Your task to perform on an android device: Play the last video I watched on Youtube Image 0: 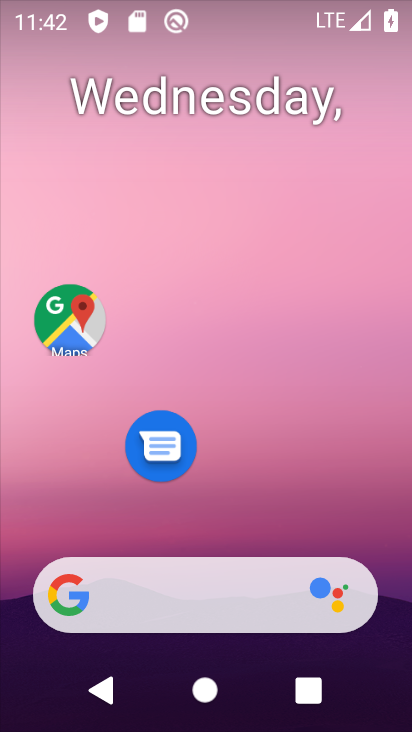
Step 0: drag from (265, 520) to (65, 80)
Your task to perform on an android device: Play the last video I watched on Youtube Image 1: 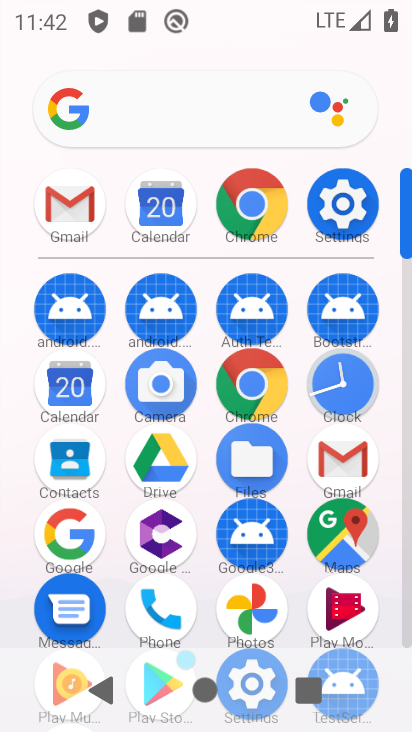
Step 1: drag from (290, 620) to (291, 298)
Your task to perform on an android device: Play the last video I watched on Youtube Image 2: 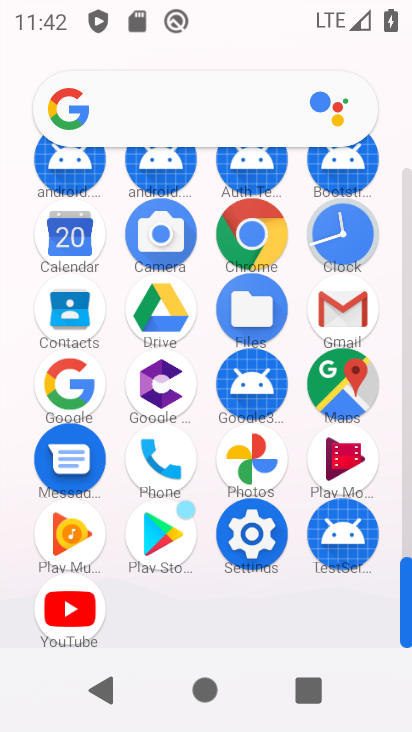
Step 2: click (74, 606)
Your task to perform on an android device: Play the last video I watched on Youtube Image 3: 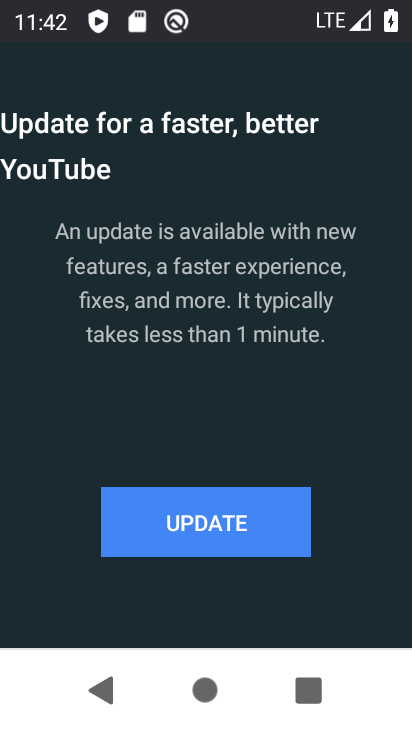
Step 3: click (239, 536)
Your task to perform on an android device: Play the last video I watched on Youtube Image 4: 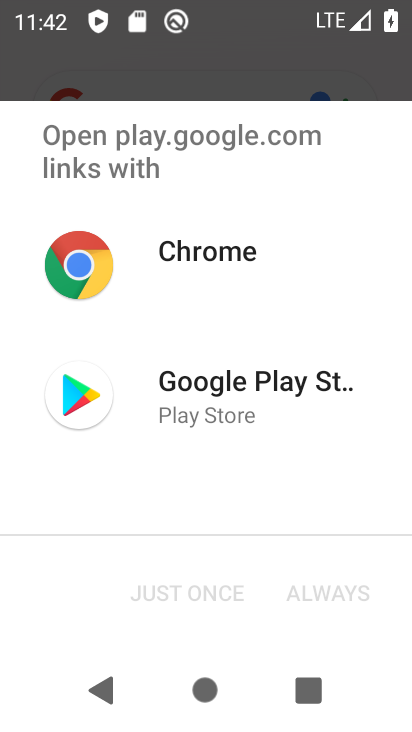
Step 4: click (191, 384)
Your task to perform on an android device: Play the last video I watched on Youtube Image 5: 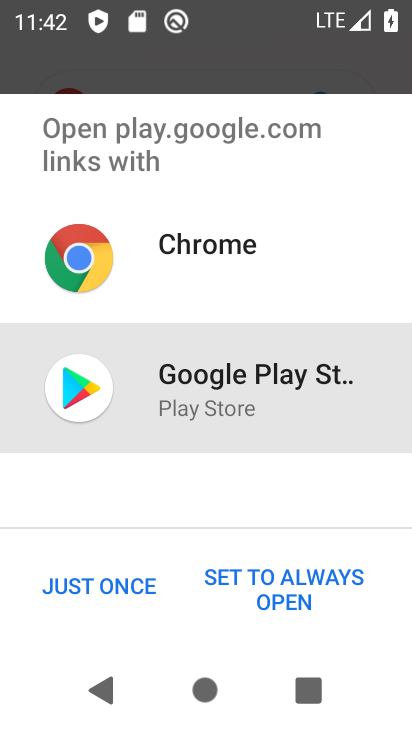
Step 5: click (100, 598)
Your task to perform on an android device: Play the last video I watched on Youtube Image 6: 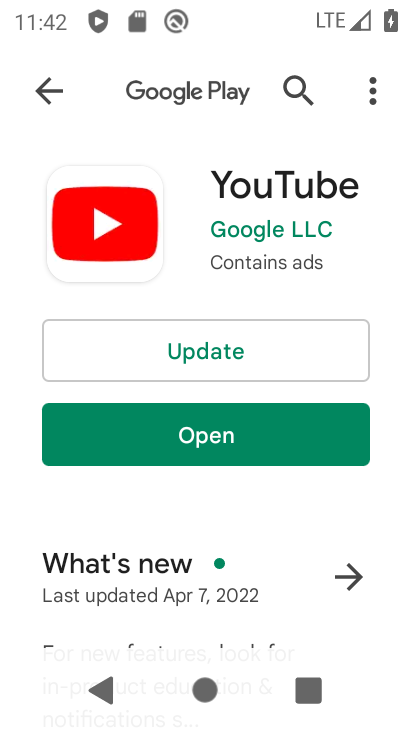
Step 6: click (238, 340)
Your task to perform on an android device: Play the last video I watched on Youtube Image 7: 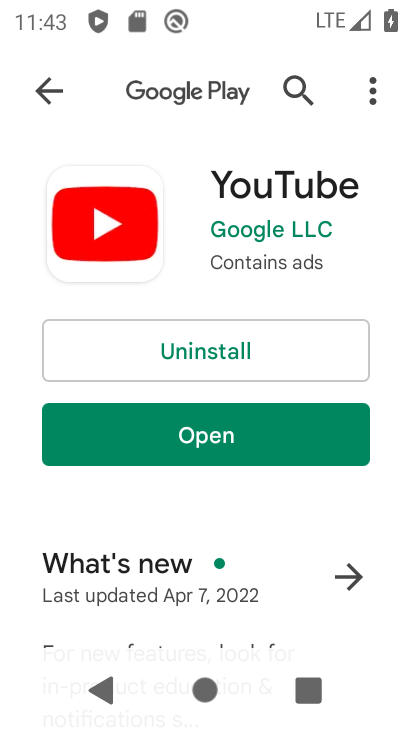
Step 7: click (183, 436)
Your task to perform on an android device: Play the last video I watched on Youtube Image 8: 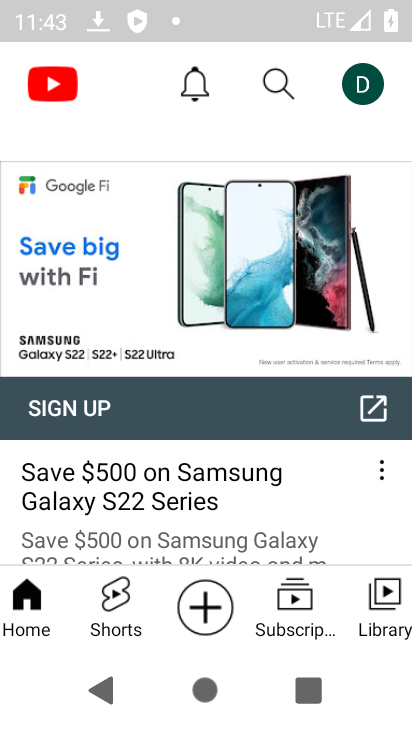
Step 8: click (380, 597)
Your task to perform on an android device: Play the last video I watched on Youtube Image 9: 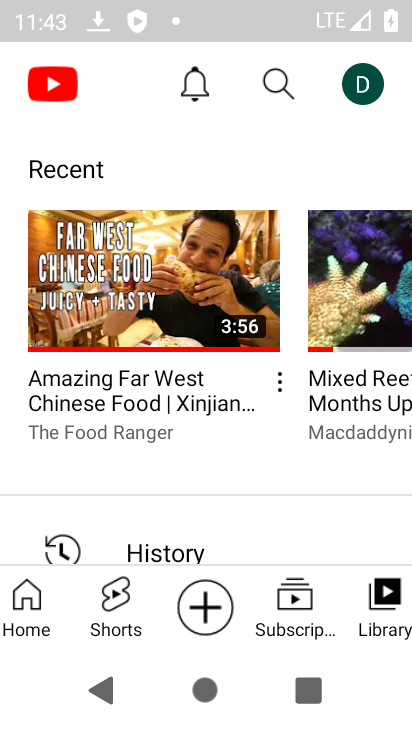
Step 9: click (136, 306)
Your task to perform on an android device: Play the last video I watched on Youtube Image 10: 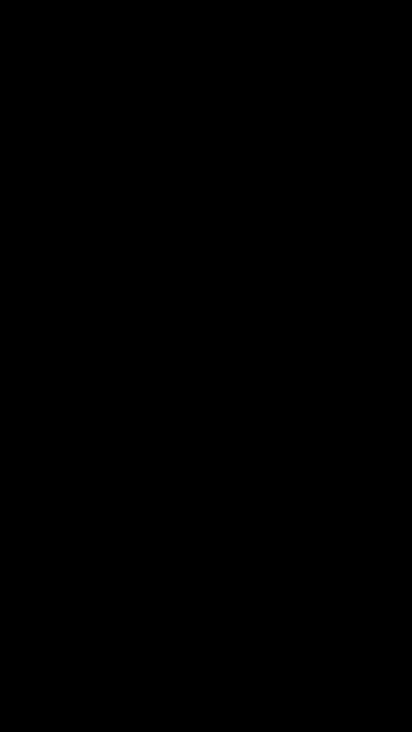
Step 10: task complete